Your task to perform on an android device: Show me productivity apps on the Play Store Image 0: 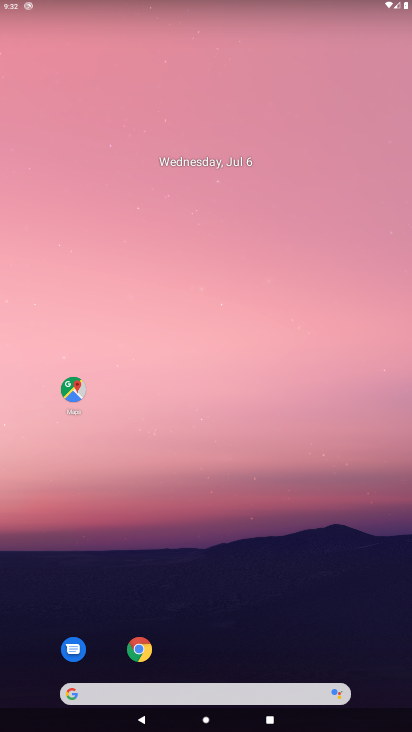
Step 0: drag from (209, 658) to (246, 2)
Your task to perform on an android device: Show me productivity apps on the Play Store Image 1: 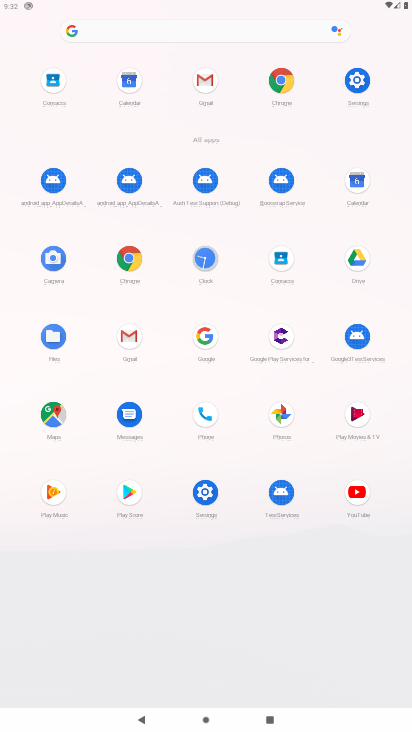
Step 1: click (125, 487)
Your task to perform on an android device: Show me productivity apps on the Play Store Image 2: 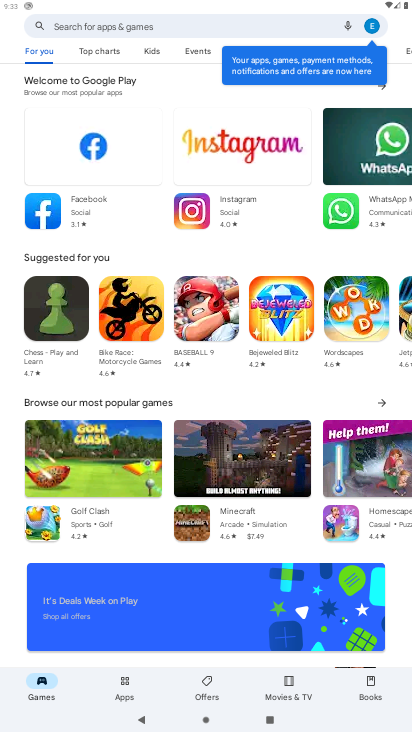
Step 2: click (124, 682)
Your task to perform on an android device: Show me productivity apps on the Play Store Image 3: 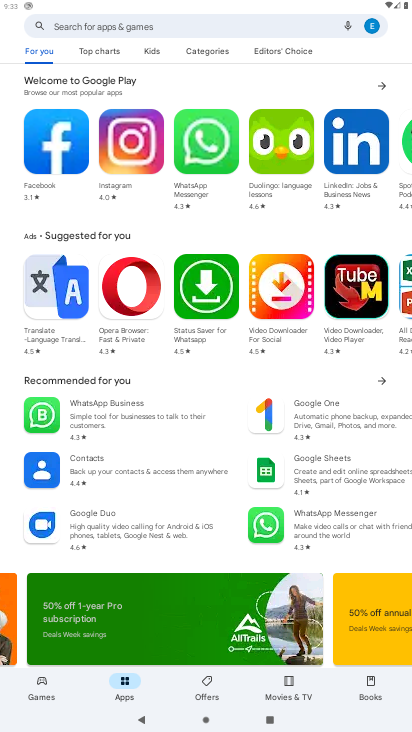
Step 3: click (105, 23)
Your task to perform on an android device: Show me productivity apps on the Play Store Image 4: 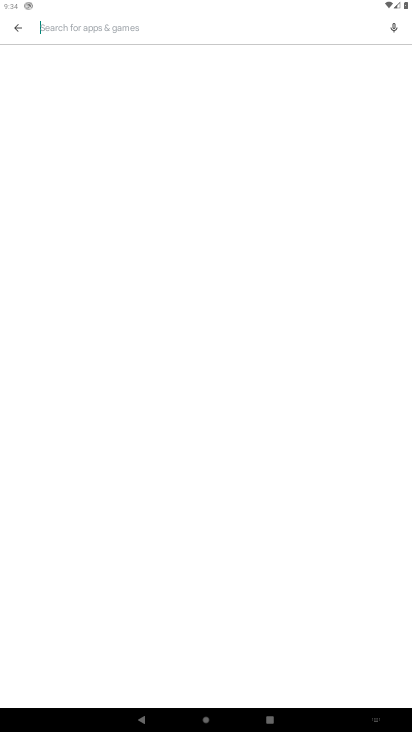
Step 4: click (13, 23)
Your task to perform on an android device: Show me productivity apps on the Play Store Image 5: 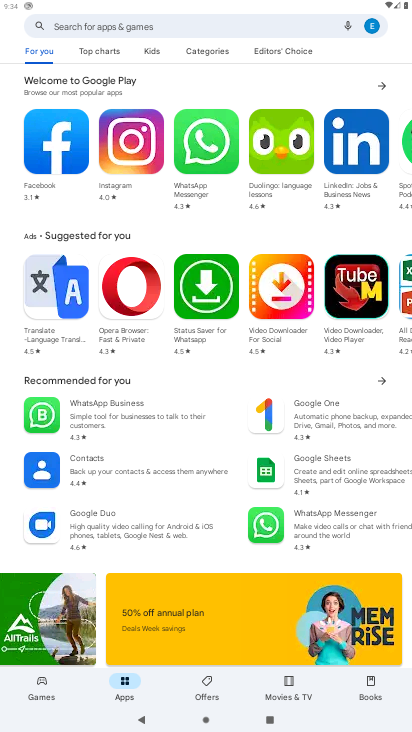
Step 5: click (190, 49)
Your task to perform on an android device: Show me productivity apps on the Play Store Image 6: 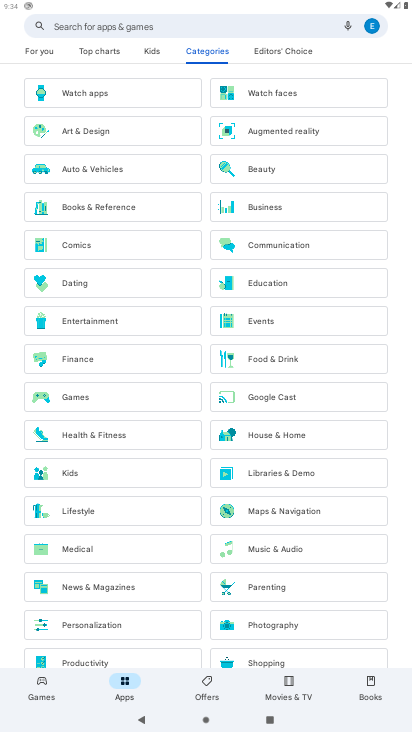
Step 6: click (113, 656)
Your task to perform on an android device: Show me productivity apps on the Play Store Image 7: 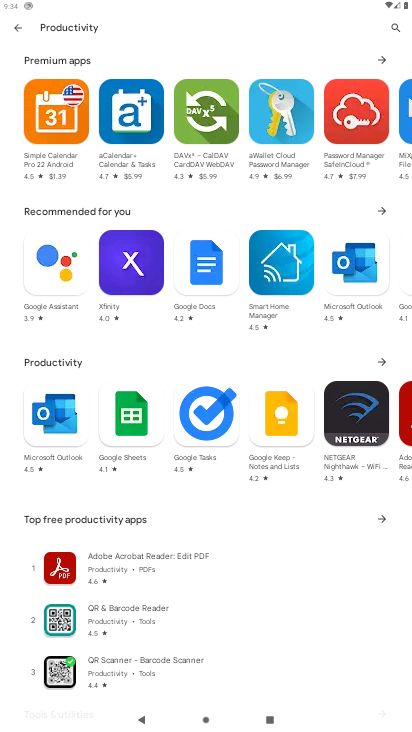
Step 7: task complete